Your task to perform on an android device: turn on the 12-hour format for clock Image 0: 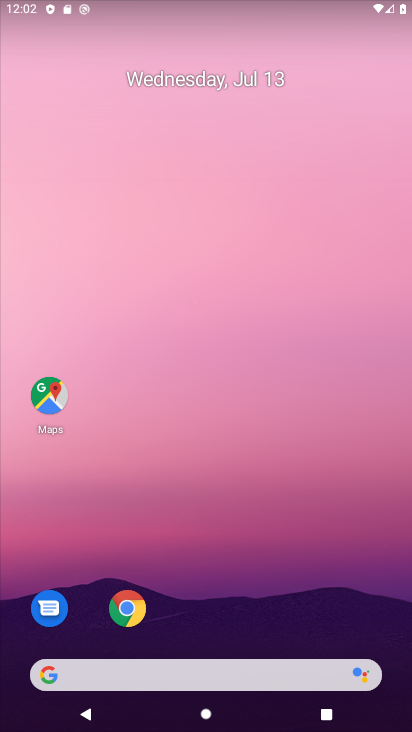
Step 0: drag from (203, 0) to (239, 39)
Your task to perform on an android device: turn on the 12-hour format for clock Image 1: 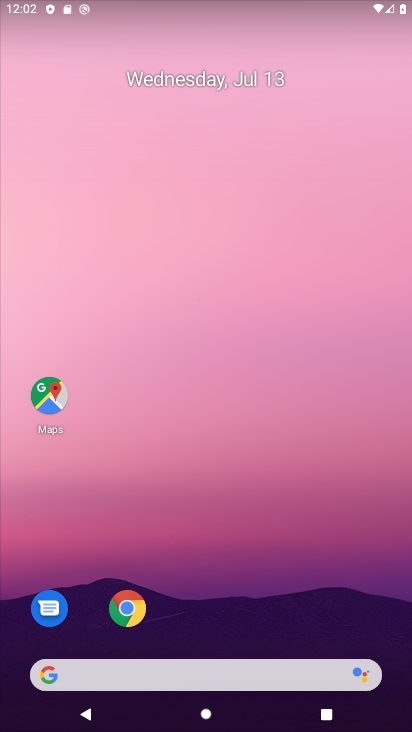
Step 1: drag from (222, 587) to (256, 8)
Your task to perform on an android device: turn on the 12-hour format for clock Image 2: 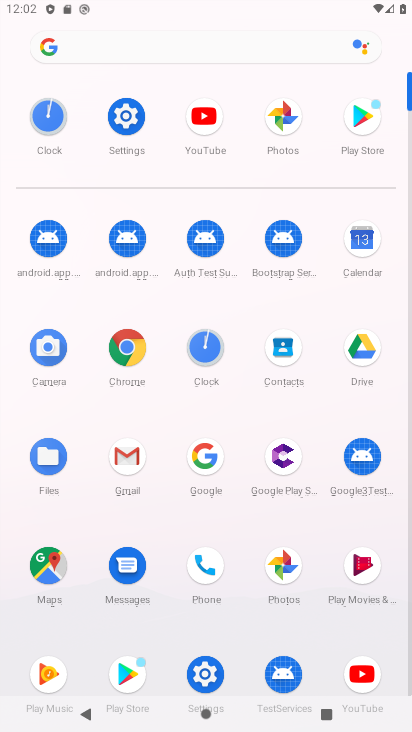
Step 2: click (203, 341)
Your task to perform on an android device: turn on the 12-hour format for clock Image 3: 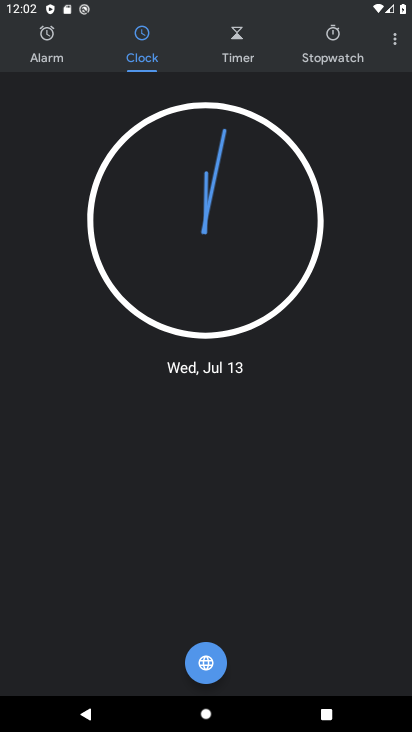
Step 3: click (396, 33)
Your task to perform on an android device: turn on the 12-hour format for clock Image 4: 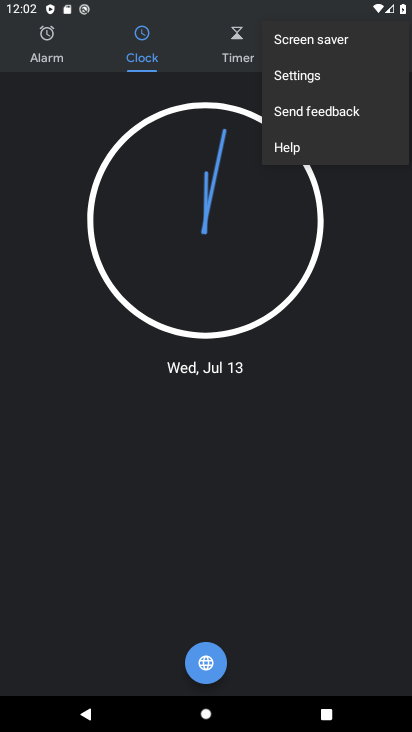
Step 4: click (314, 78)
Your task to perform on an android device: turn on the 12-hour format for clock Image 5: 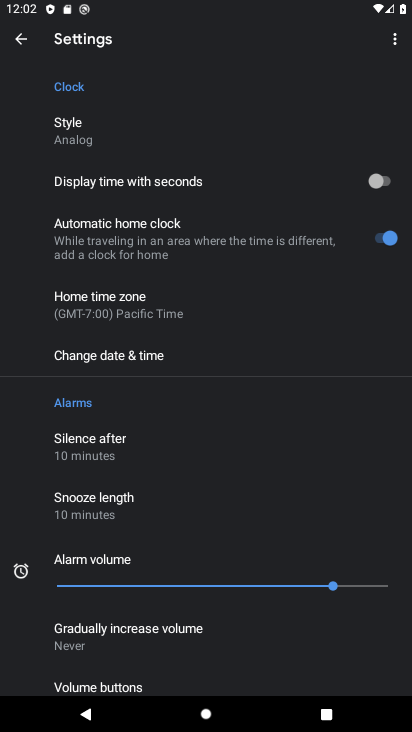
Step 5: click (158, 360)
Your task to perform on an android device: turn on the 12-hour format for clock Image 6: 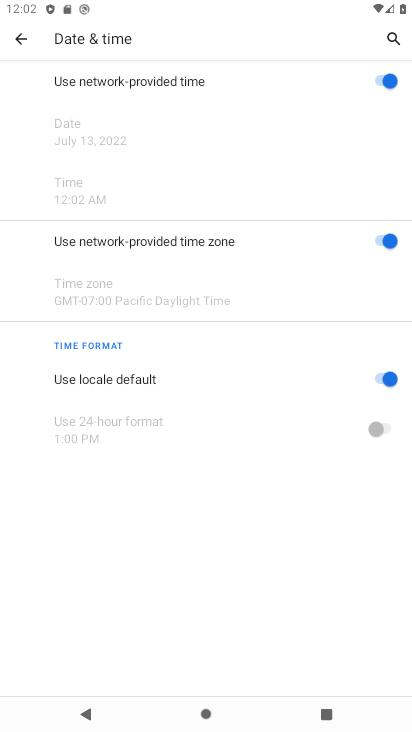
Step 6: task complete